Your task to perform on an android device: Open Google Chrome and click the shortcut for Amazon.com Image 0: 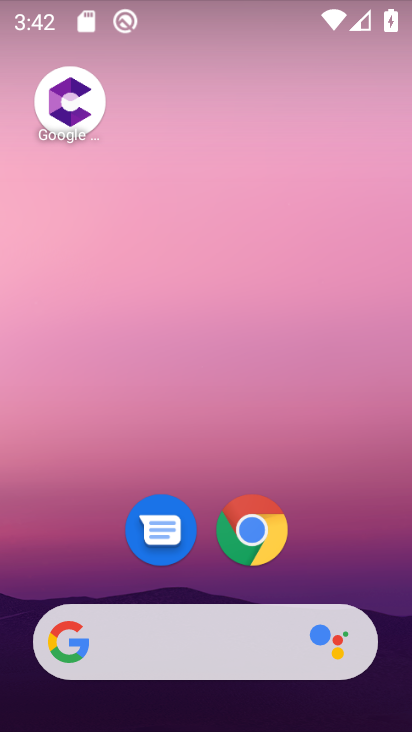
Step 0: click (263, 524)
Your task to perform on an android device: Open Google Chrome and click the shortcut for Amazon.com Image 1: 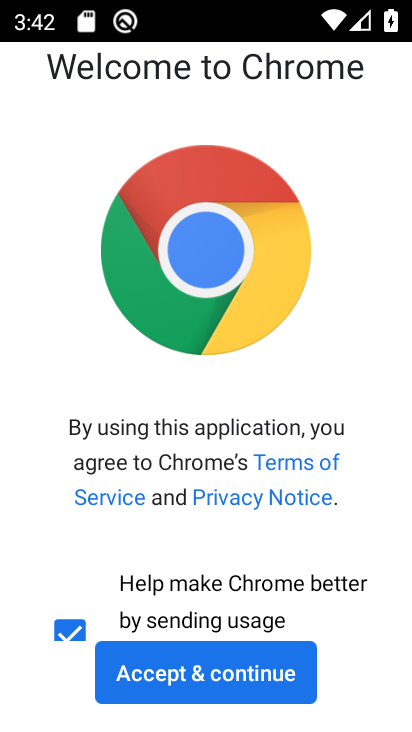
Step 1: click (207, 680)
Your task to perform on an android device: Open Google Chrome and click the shortcut for Amazon.com Image 2: 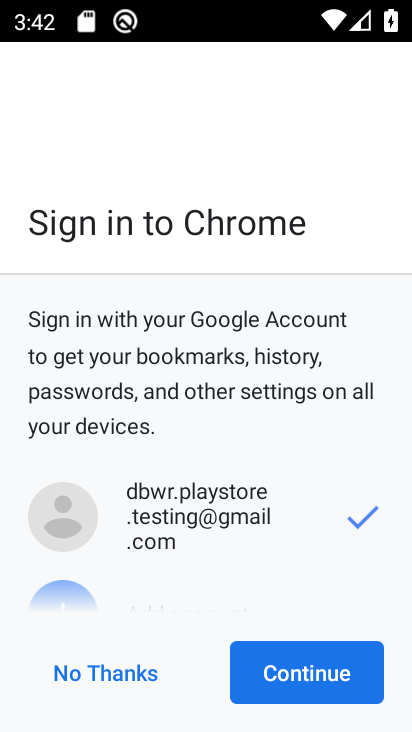
Step 2: click (292, 669)
Your task to perform on an android device: Open Google Chrome and click the shortcut for Amazon.com Image 3: 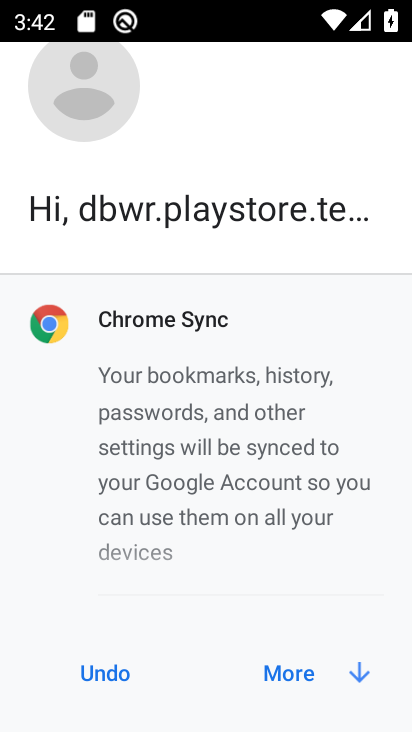
Step 3: click (294, 669)
Your task to perform on an android device: Open Google Chrome and click the shortcut for Amazon.com Image 4: 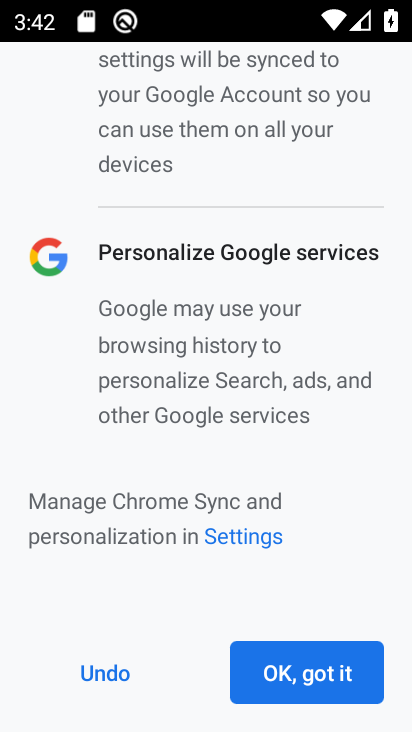
Step 4: click (274, 667)
Your task to perform on an android device: Open Google Chrome and click the shortcut for Amazon.com Image 5: 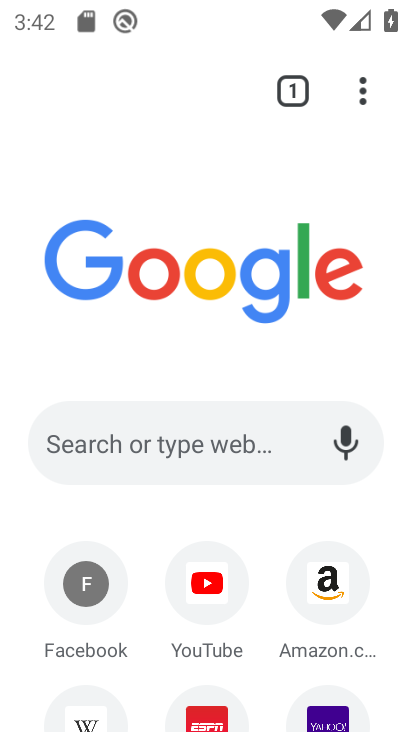
Step 5: click (325, 600)
Your task to perform on an android device: Open Google Chrome and click the shortcut for Amazon.com Image 6: 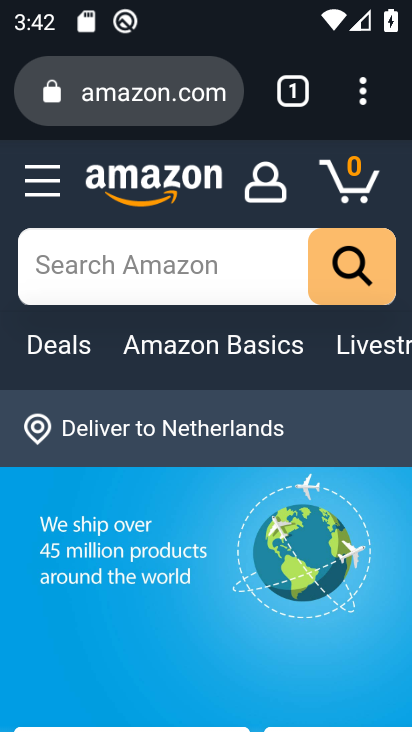
Step 6: task complete